Your task to perform on an android device: Open settings Image 0: 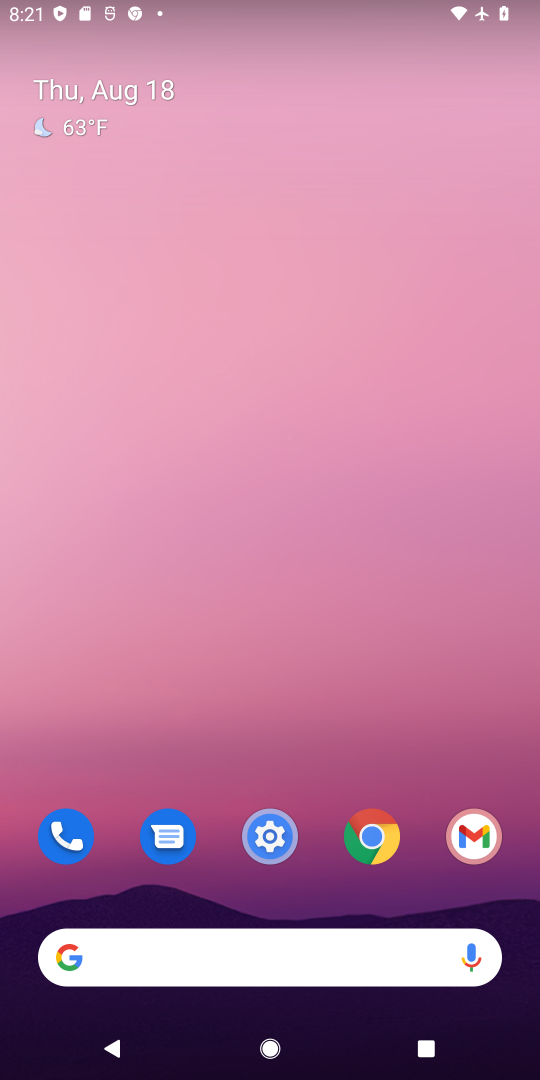
Step 0: drag from (320, 751) to (288, 90)
Your task to perform on an android device: Open settings Image 1: 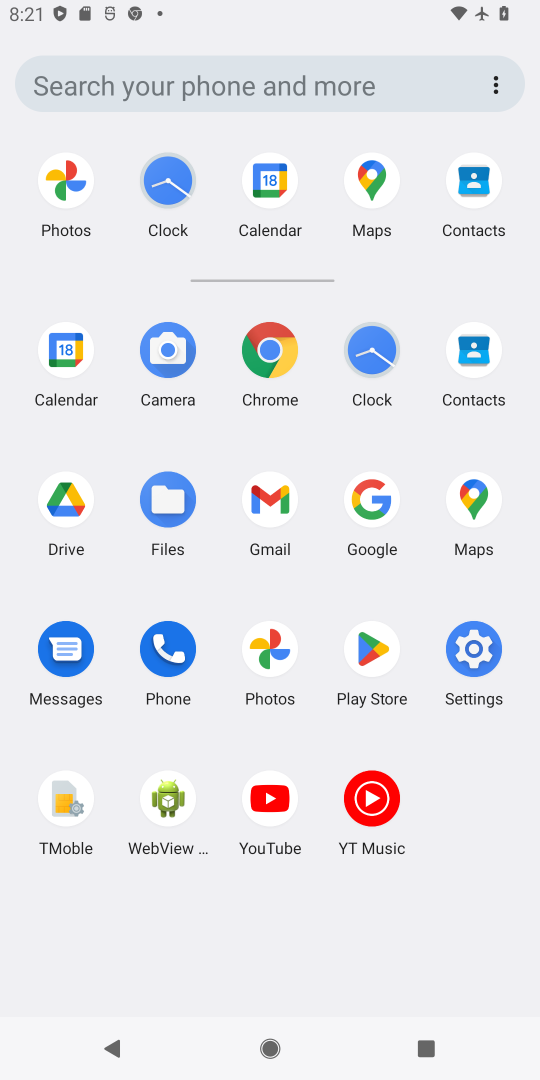
Step 1: click (475, 637)
Your task to perform on an android device: Open settings Image 2: 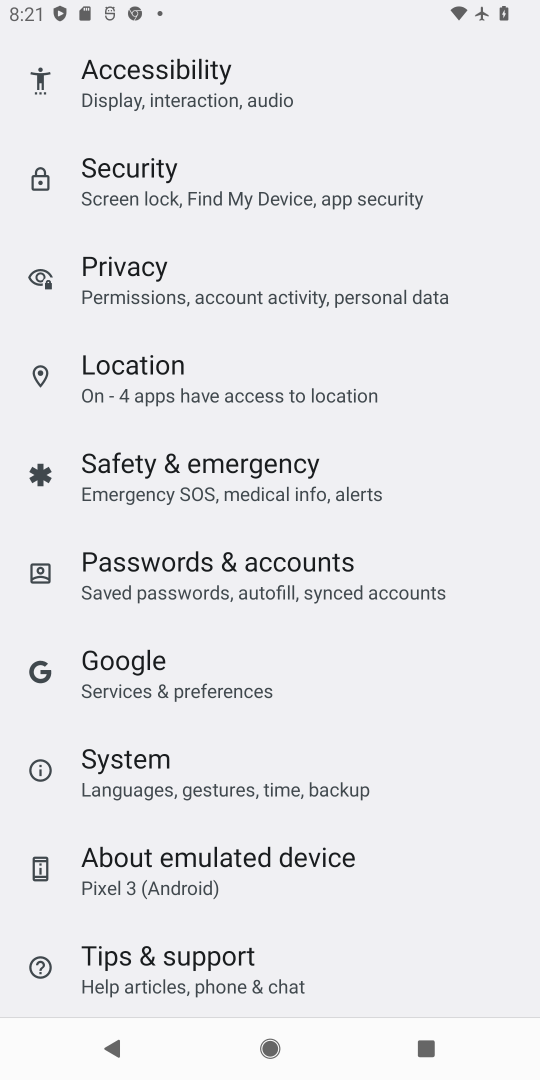
Step 2: task complete